Your task to perform on an android device: toggle location history Image 0: 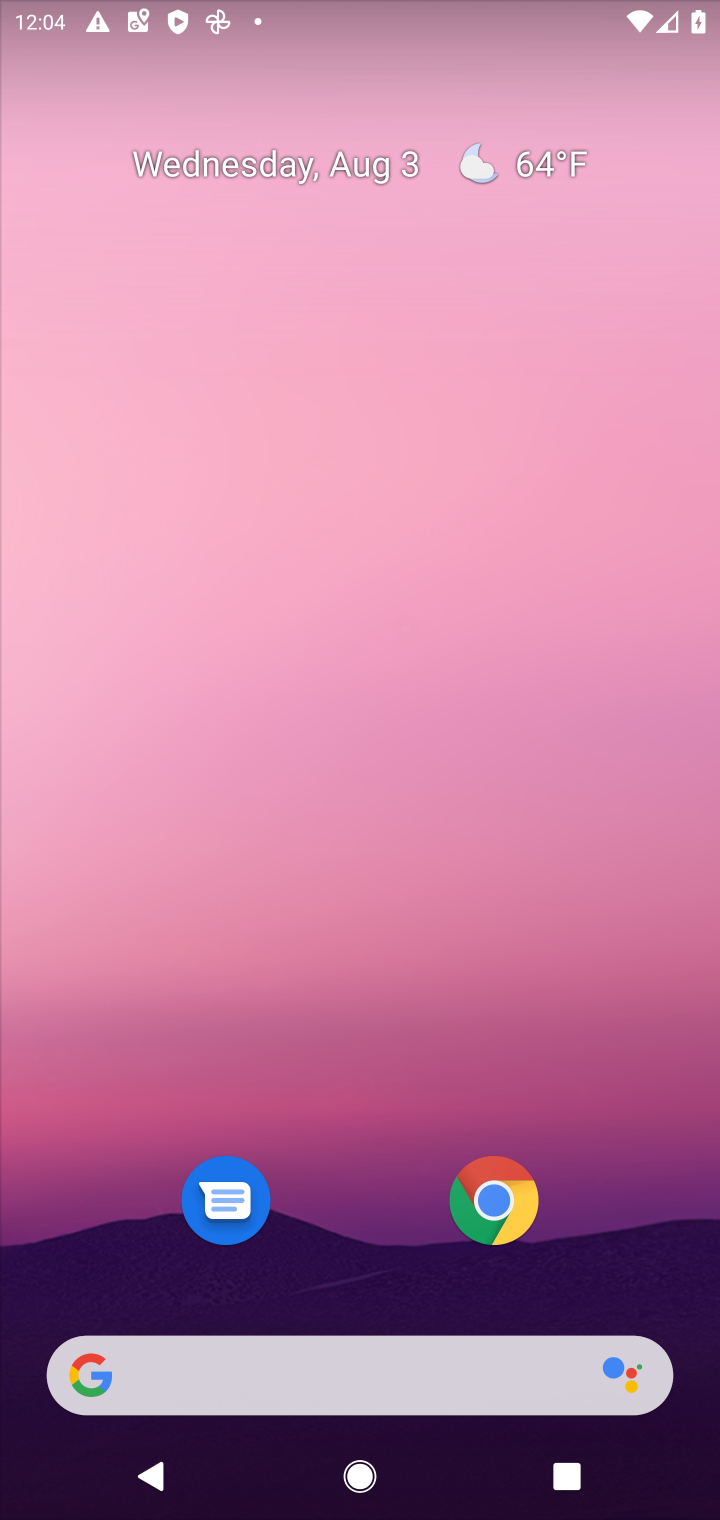
Step 0: drag from (651, 1202) to (547, 302)
Your task to perform on an android device: toggle location history Image 1: 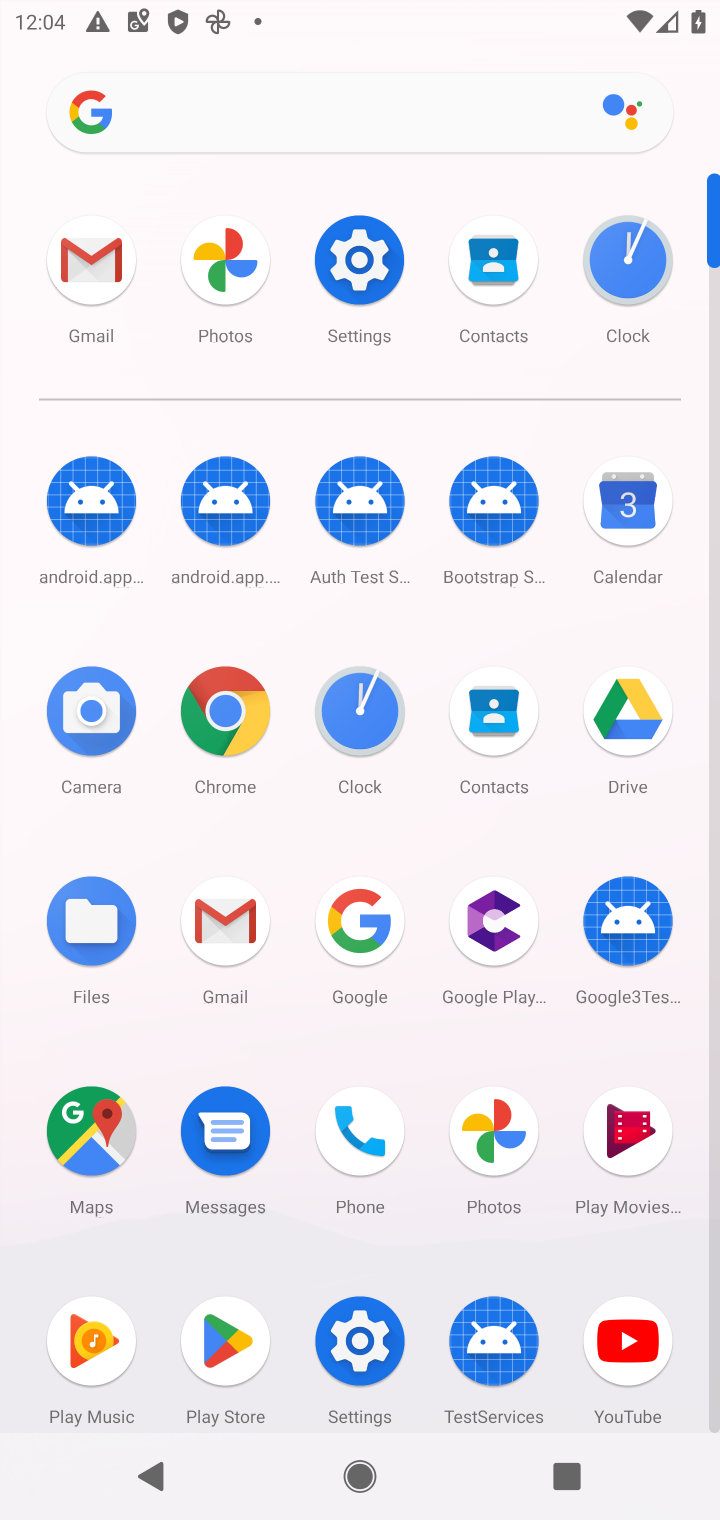
Step 1: click (91, 1129)
Your task to perform on an android device: toggle location history Image 2: 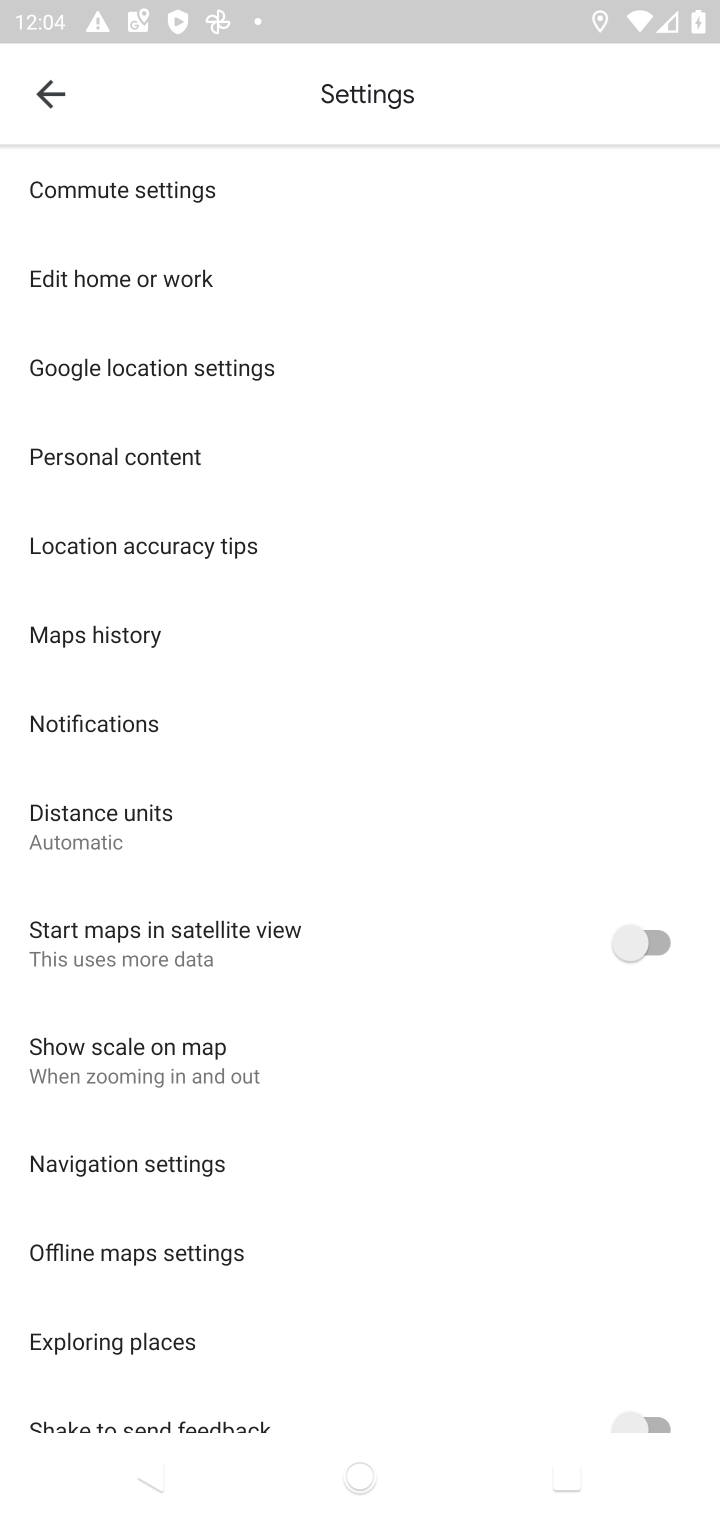
Step 2: click (124, 467)
Your task to perform on an android device: toggle location history Image 3: 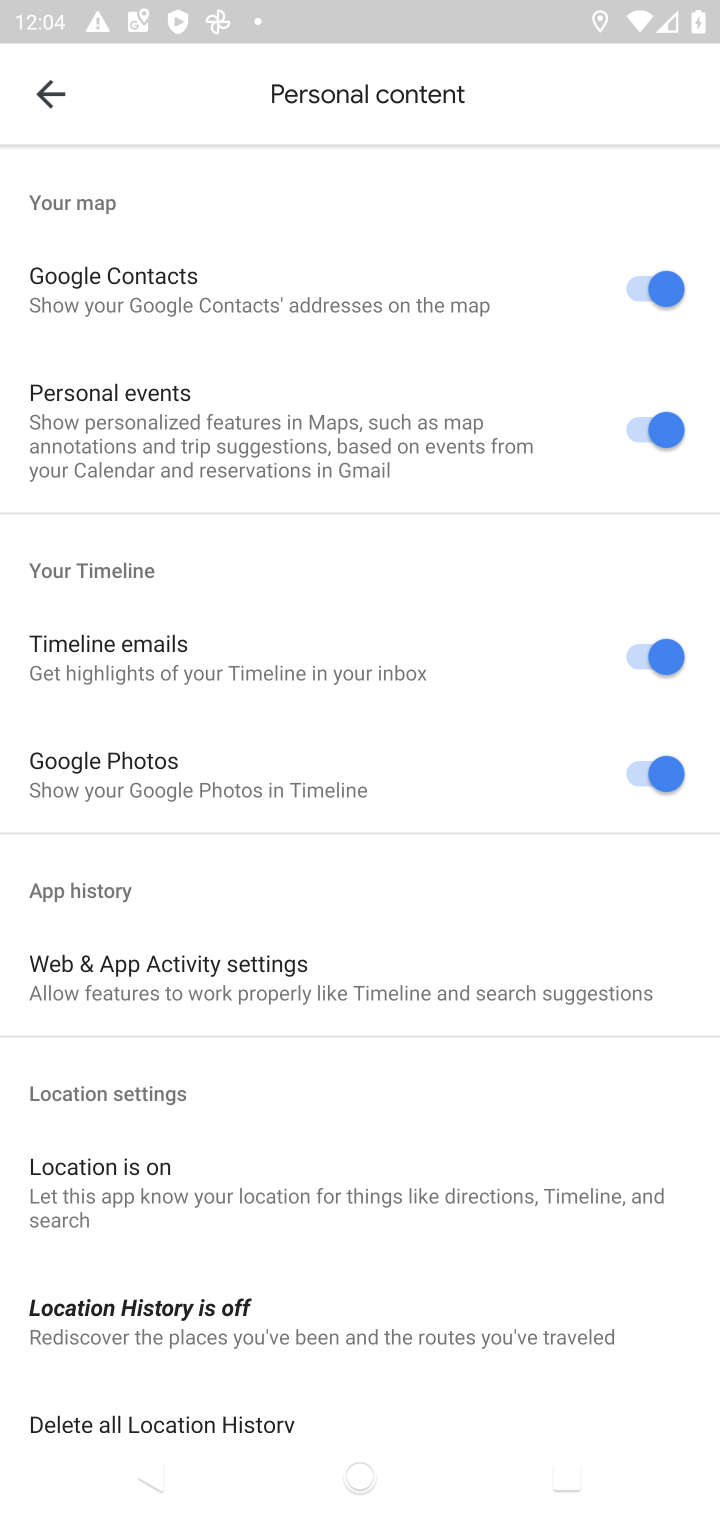
Step 3: drag from (400, 1303) to (398, 549)
Your task to perform on an android device: toggle location history Image 4: 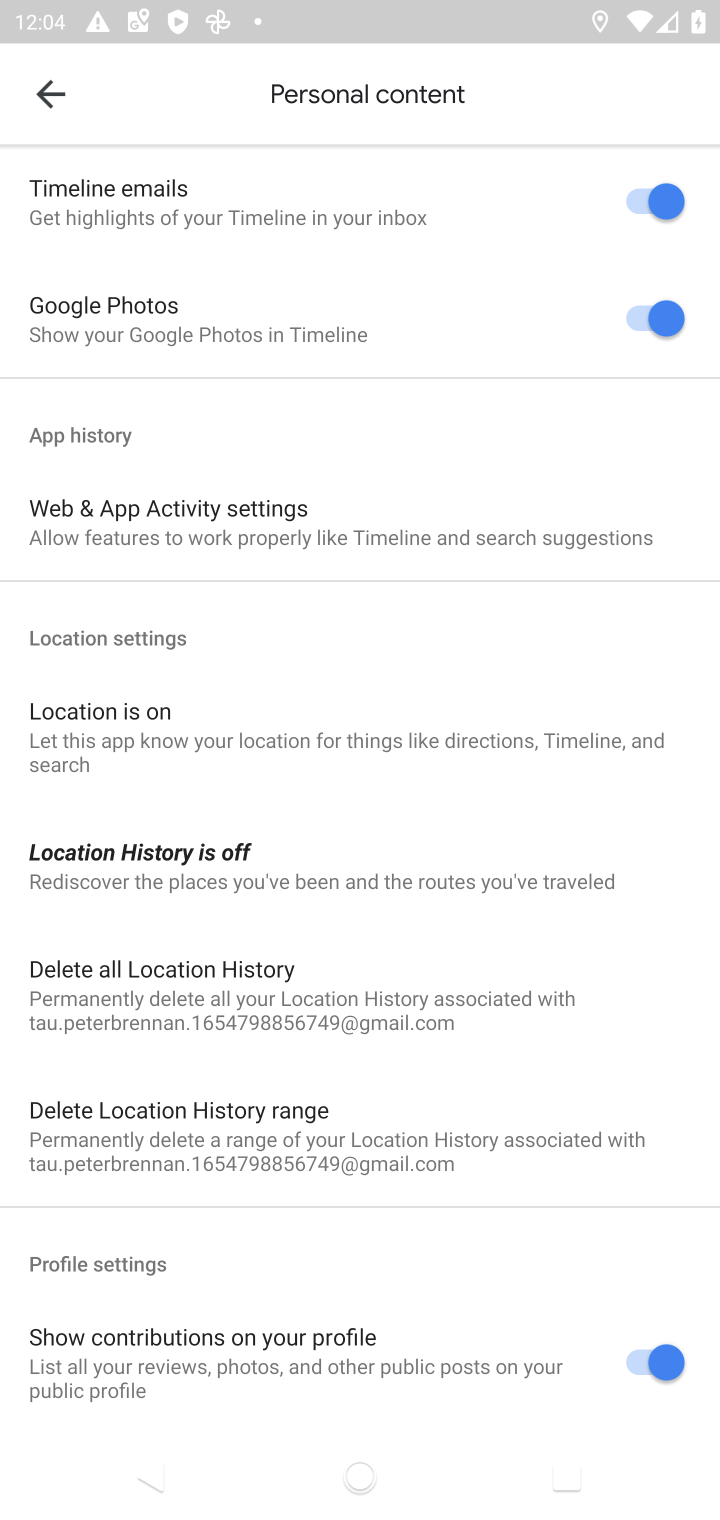
Step 4: click (124, 847)
Your task to perform on an android device: toggle location history Image 5: 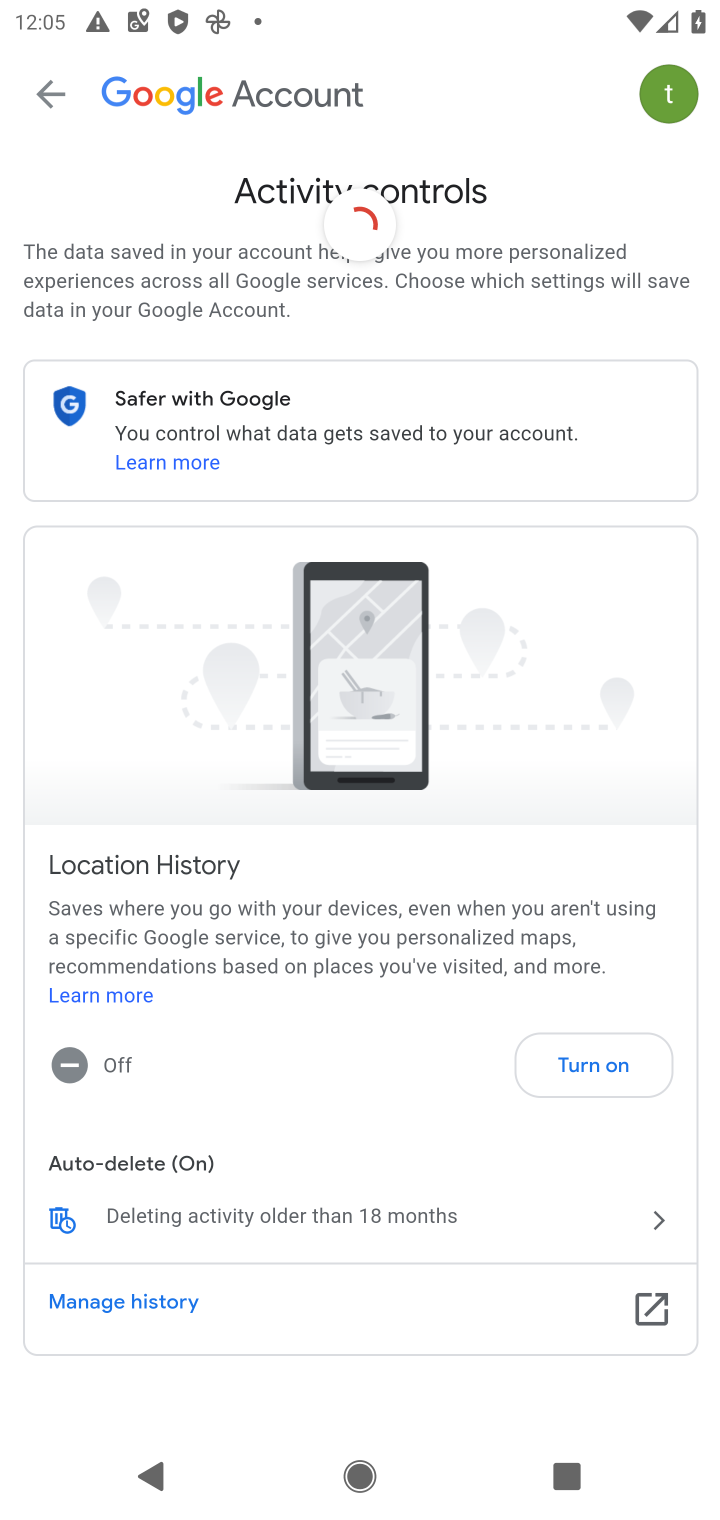
Step 5: click (601, 1061)
Your task to perform on an android device: toggle location history Image 6: 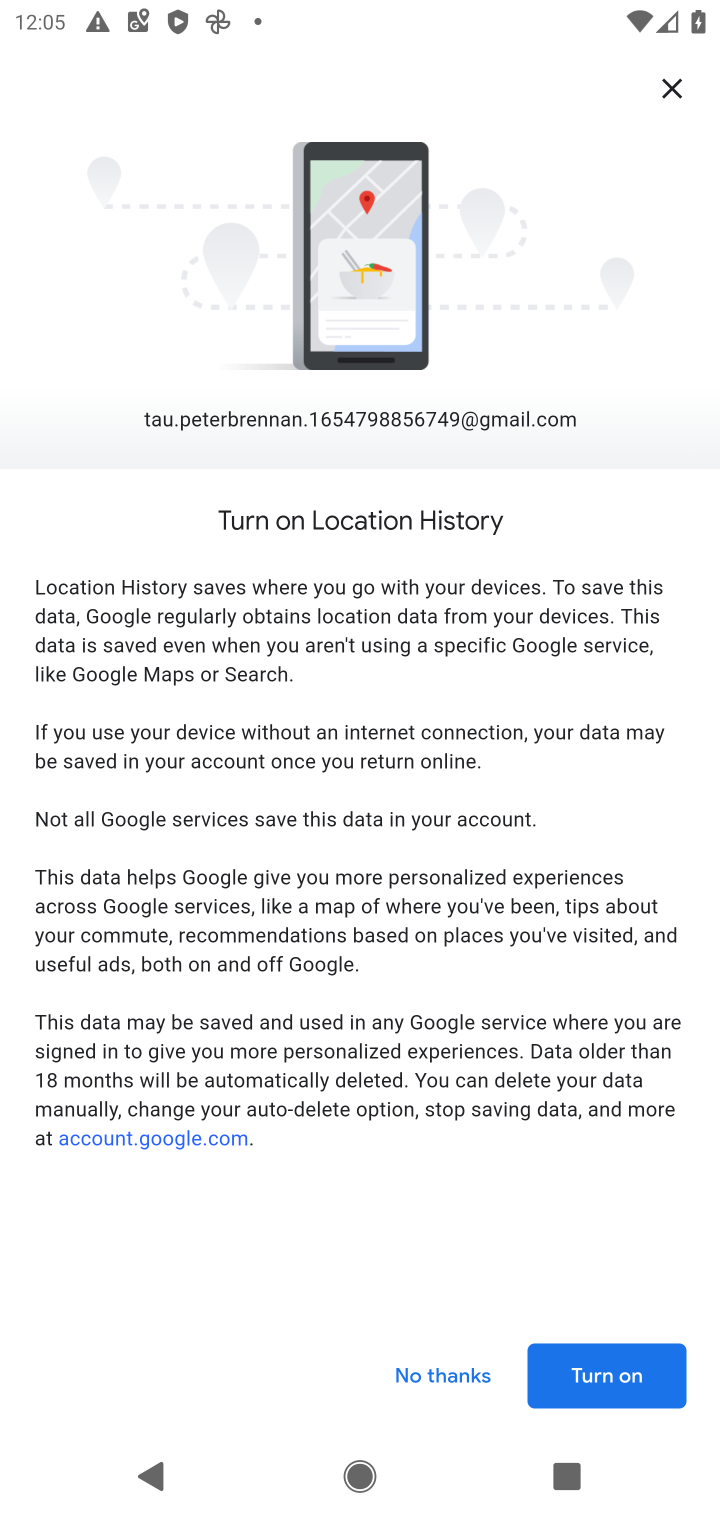
Step 6: click (621, 1371)
Your task to perform on an android device: toggle location history Image 7: 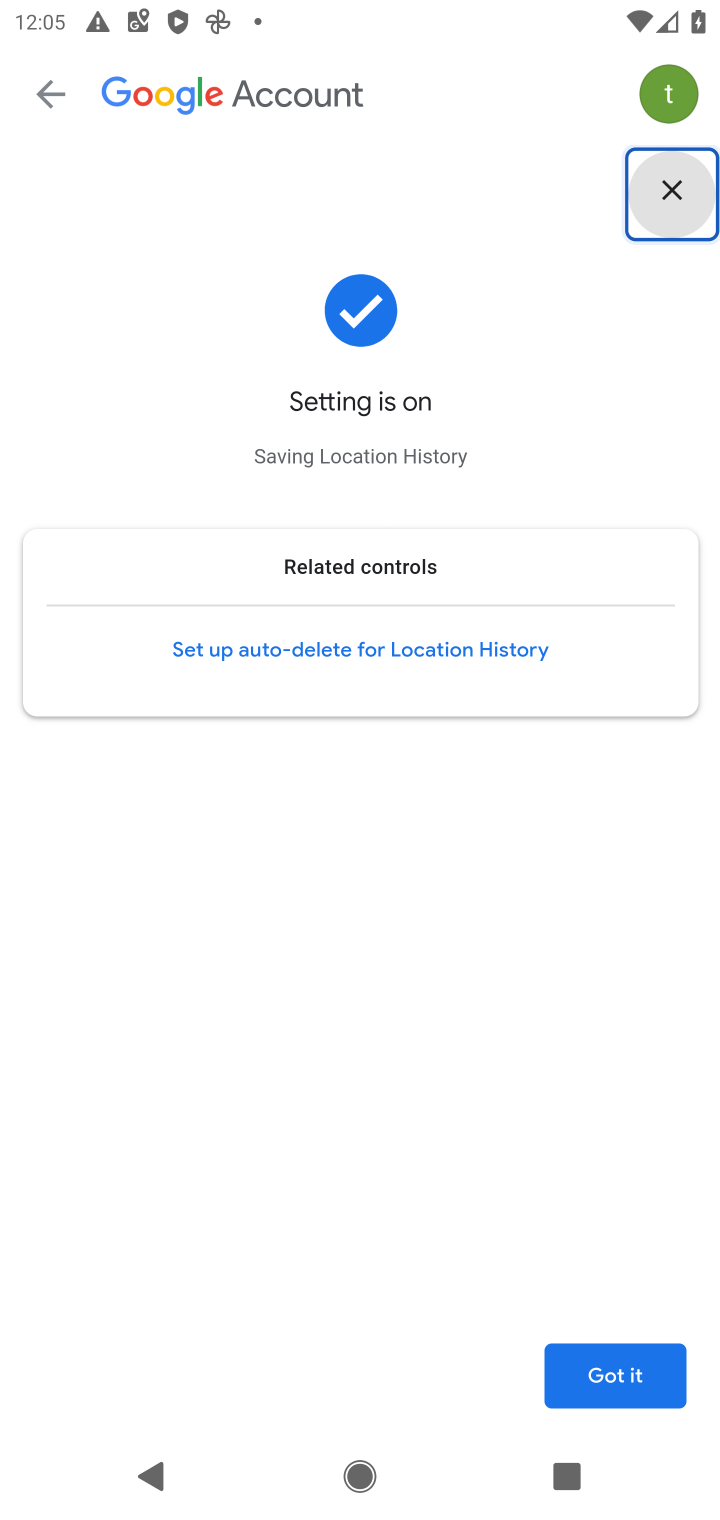
Step 7: click (619, 1388)
Your task to perform on an android device: toggle location history Image 8: 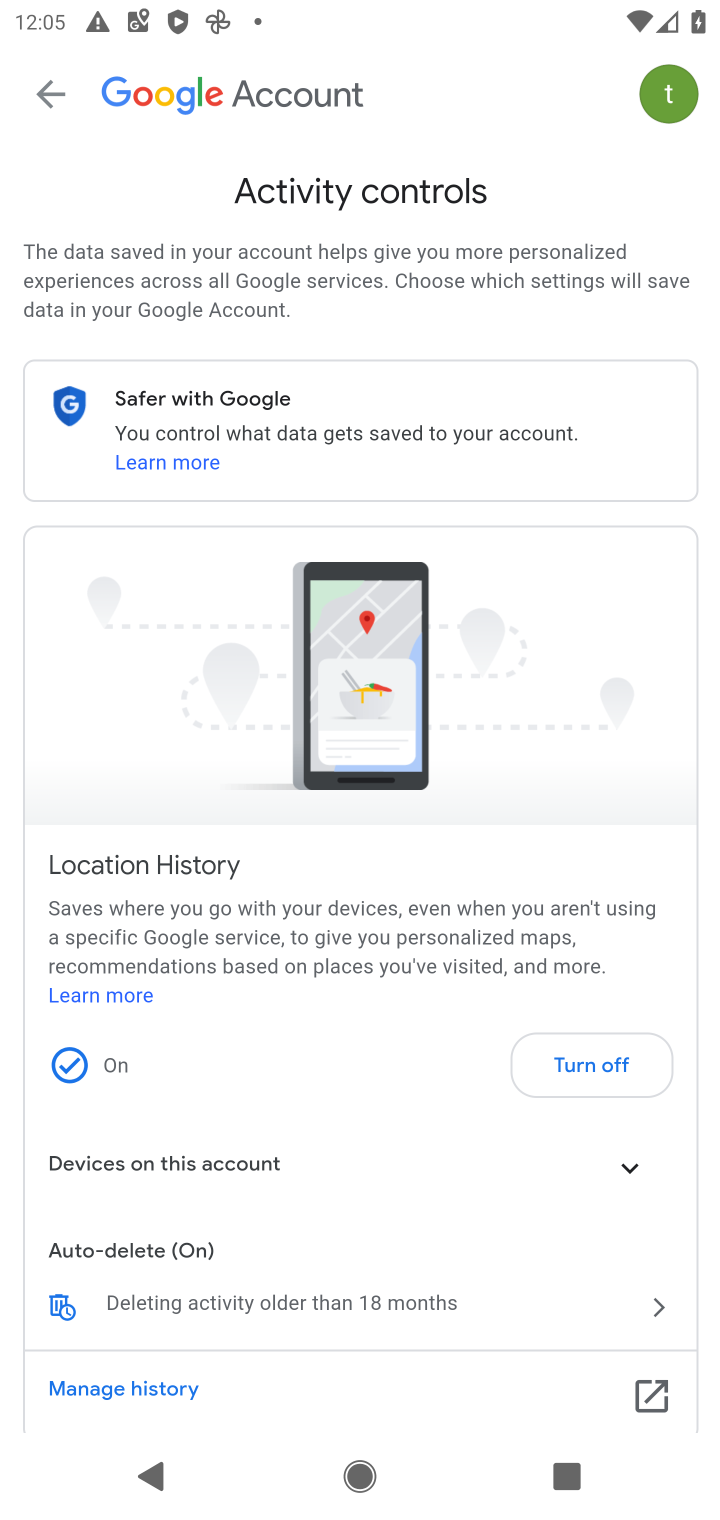
Step 8: task complete